Your task to perform on an android device: When is my next meeting? Image 0: 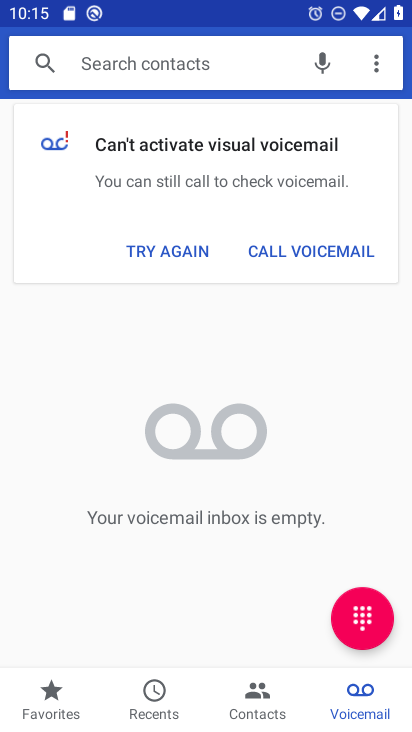
Step 0: drag from (394, 627) to (375, 304)
Your task to perform on an android device: When is my next meeting? Image 1: 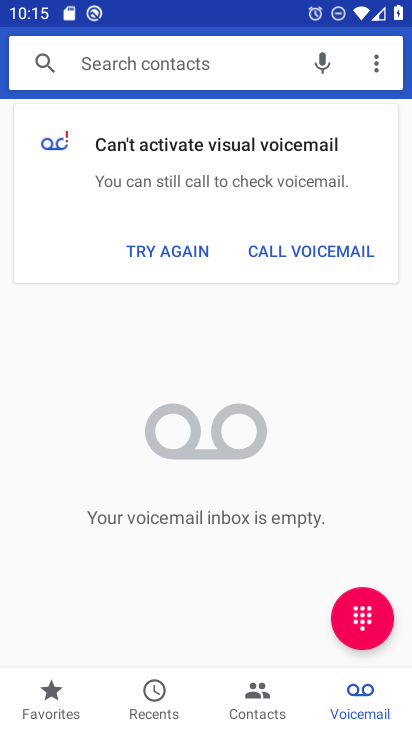
Step 1: press home button
Your task to perform on an android device: When is my next meeting? Image 2: 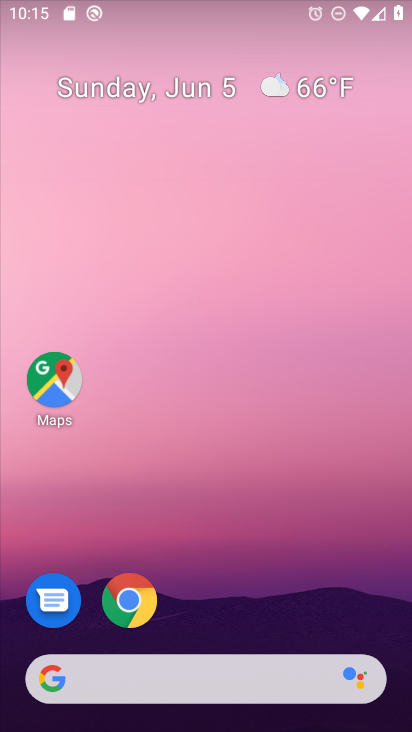
Step 2: drag from (380, 642) to (317, 21)
Your task to perform on an android device: When is my next meeting? Image 3: 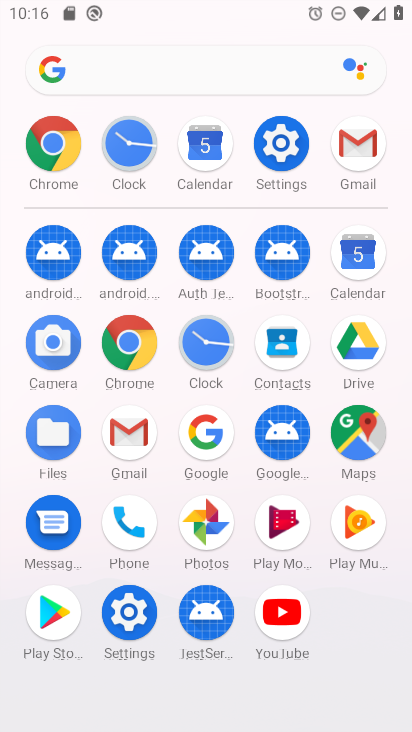
Step 3: click (370, 279)
Your task to perform on an android device: When is my next meeting? Image 4: 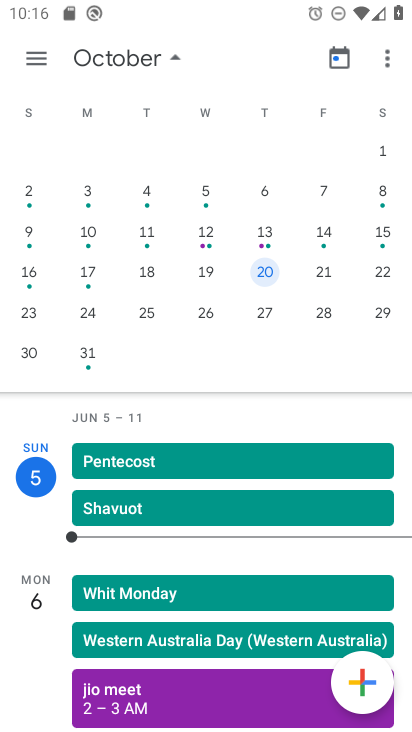
Step 4: task complete